Your task to perform on an android device: Add acer predator to the cart on costco, then select checkout. Image 0: 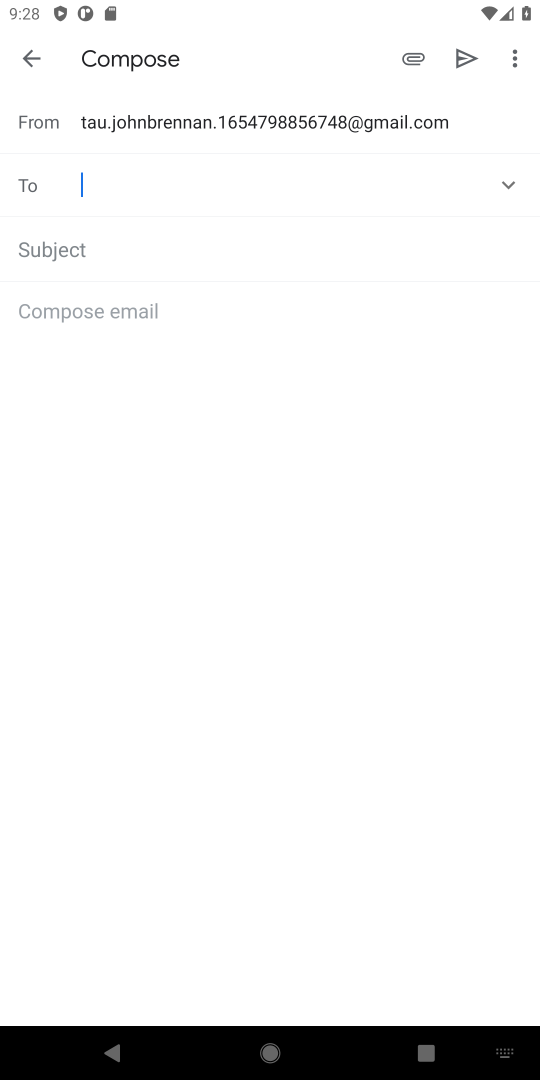
Step 0: press home button
Your task to perform on an android device: Add acer predator to the cart on costco, then select checkout. Image 1: 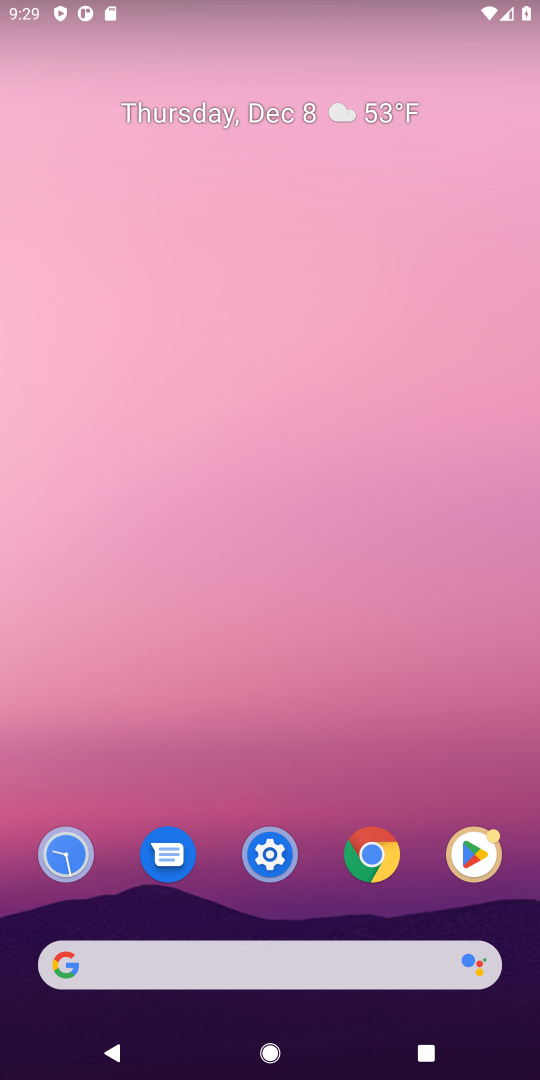
Step 1: click (94, 964)
Your task to perform on an android device: Add acer predator to the cart on costco, then select checkout. Image 2: 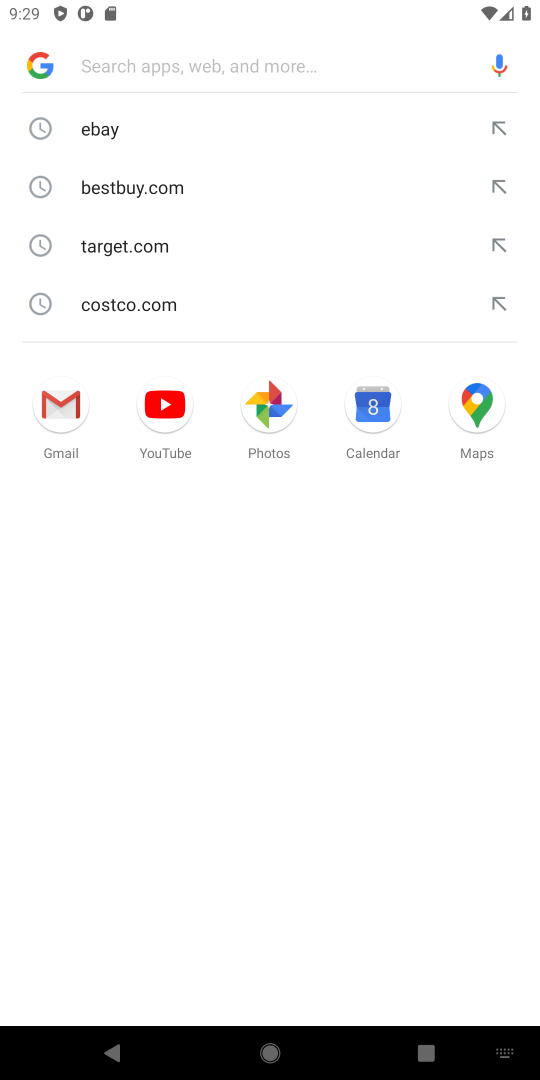
Step 2: press enter
Your task to perform on an android device: Add acer predator to the cart on costco, then select checkout. Image 3: 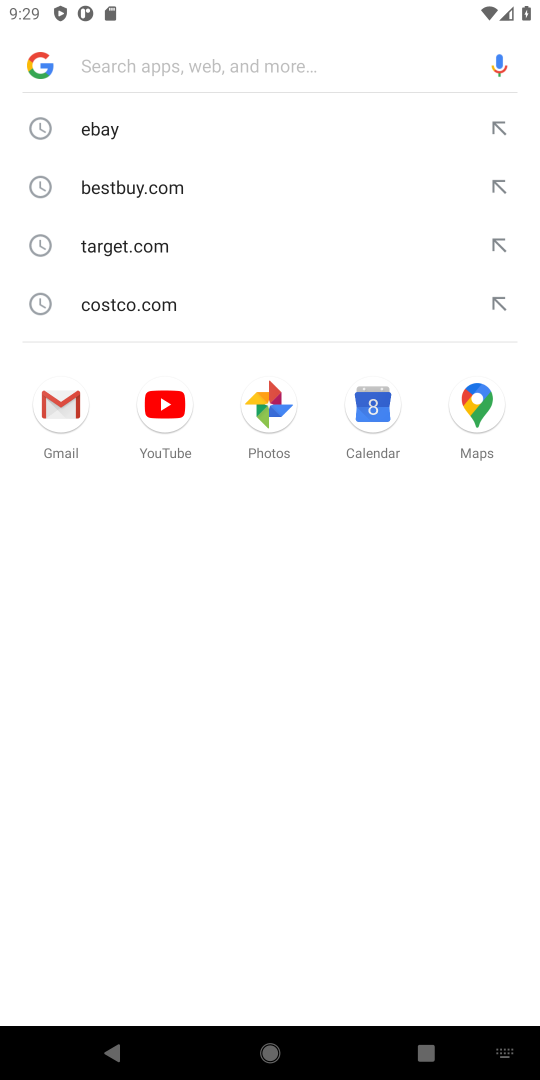
Step 3: type "costco"
Your task to perform on an android device: Add acer predator to the cart on costco, then select checkout. Image 4: 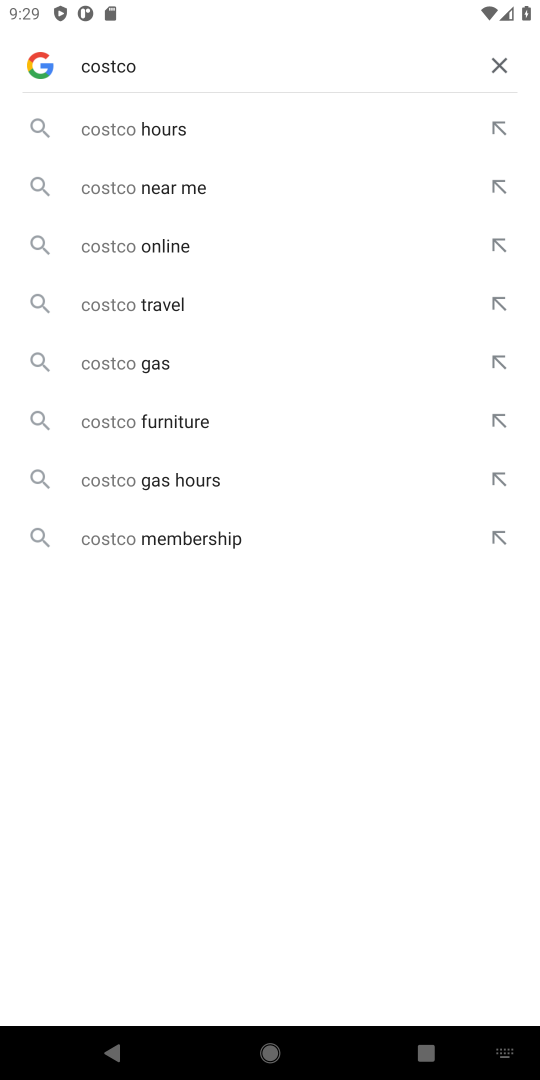
Step 4: press enter
Your task to perform on an android device: Add acer predator to the cart on costco, then select checkout. Image 5: 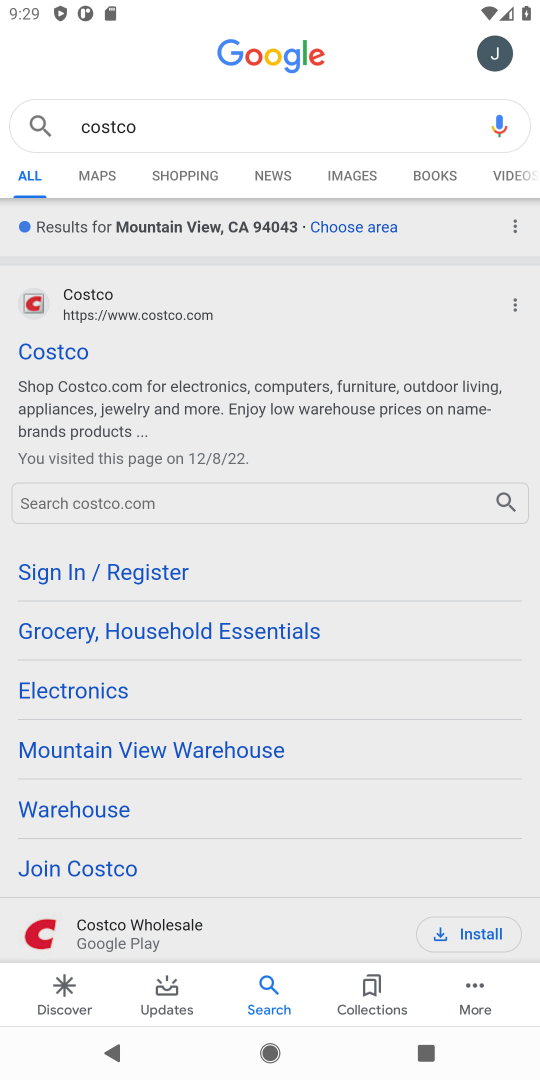
Step 5: click (48, 351)
Your task to perform on an android device: Add acer predator to the cart on costco, then select checkout. Image 6: 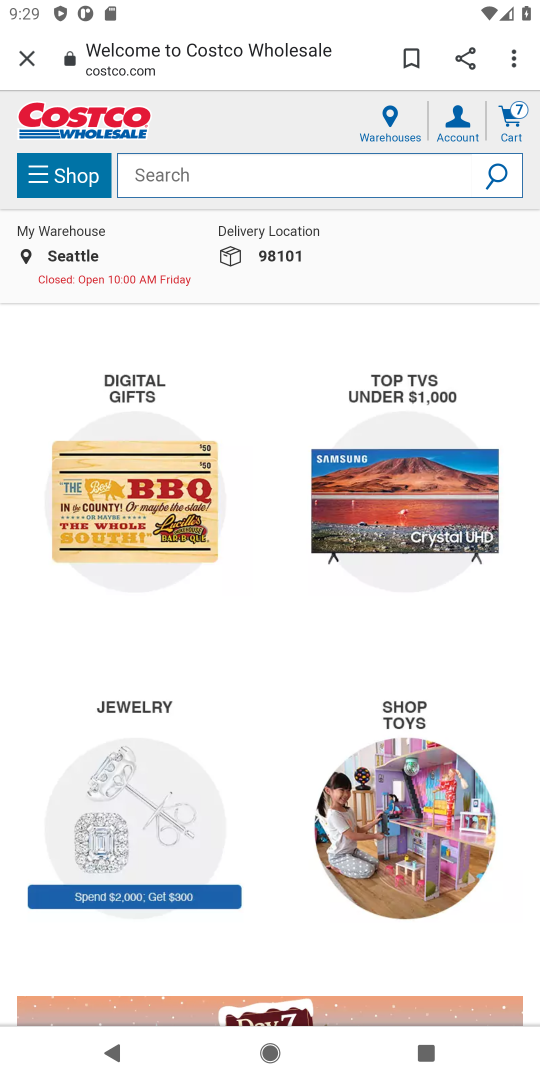
Step 6: click (180, 172)
Your task to perform on an android device: Add acer predator to the cart on costco, then select checkout. Image 7: 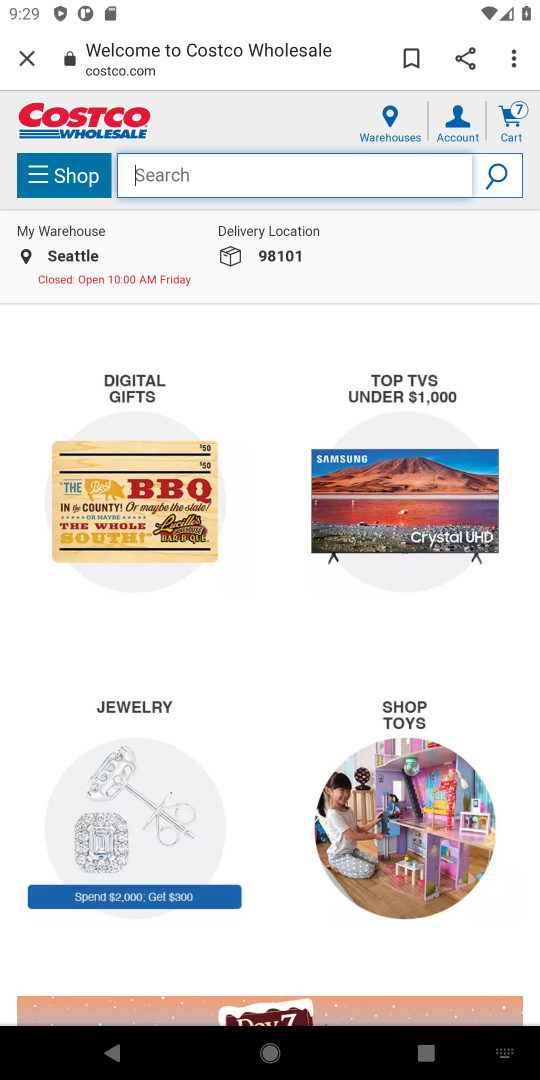
Step 7: press enter
Your task to perform on an android device: Add acer predator to the cart on costco, then select checkout. Image 8: 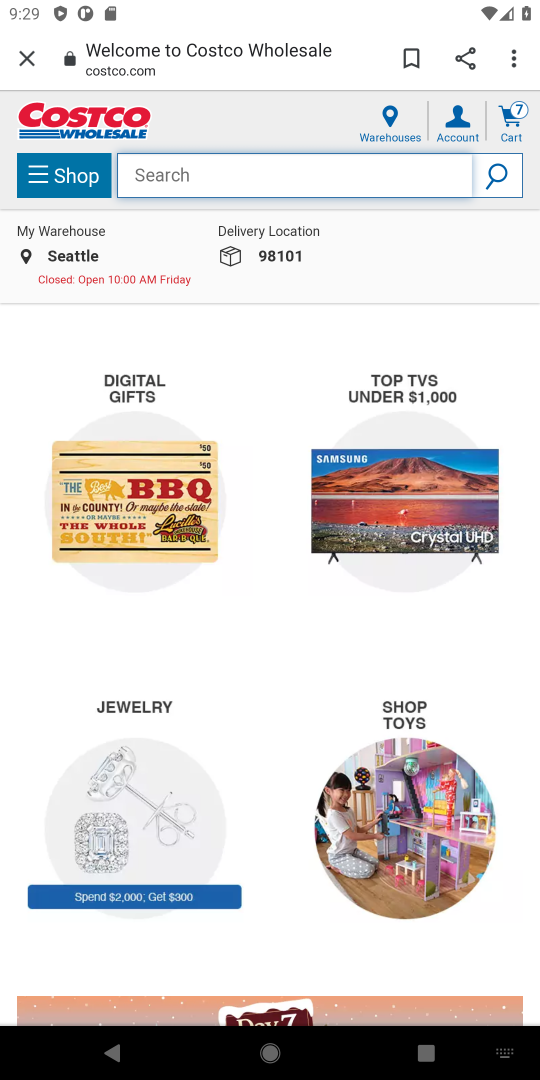
Step 8: type "acer predator"
Your task to perform on an android device: Add acer predator to the cart on costco, then select checkout. Image 9: 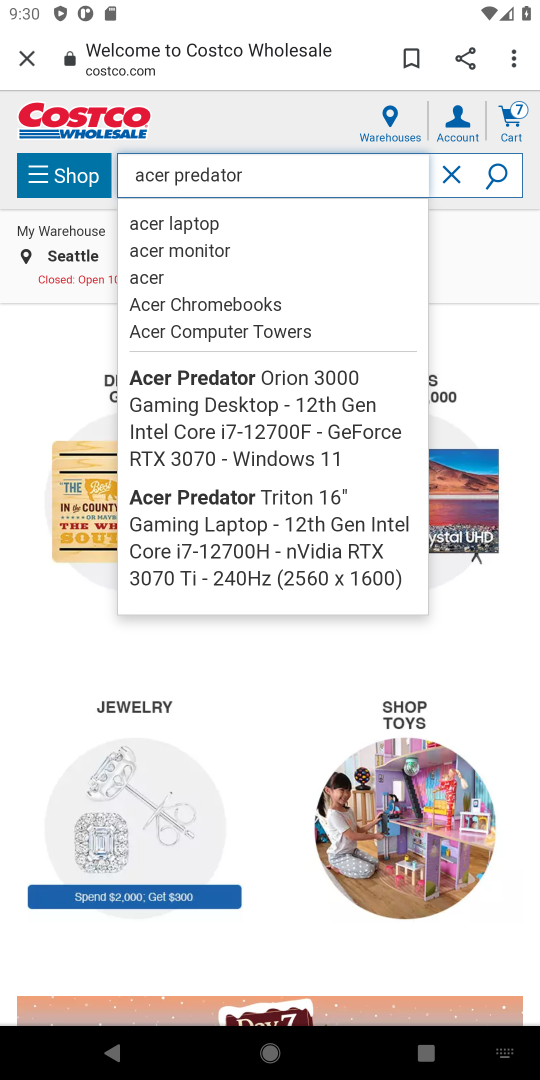
Step 9: press enter
Your task to perform on an android device: Add acer predator to the cart on costco, then select checkout. Image 10: 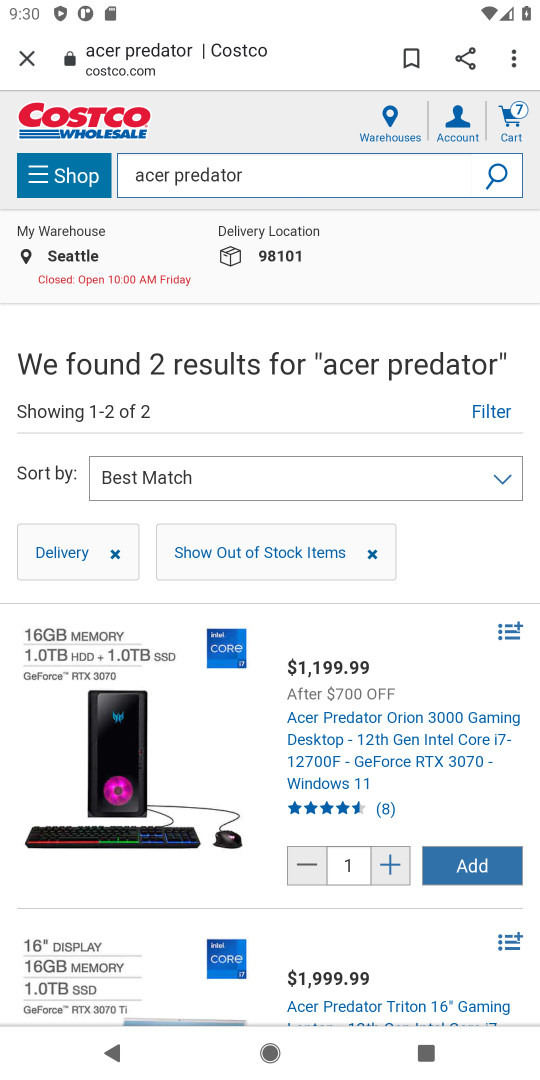
Step 10: drag from (387, 799) to (390, 496)
Your task to perform on an android device: Add acer predator to the cart on costco, then select checkout. Image 11: 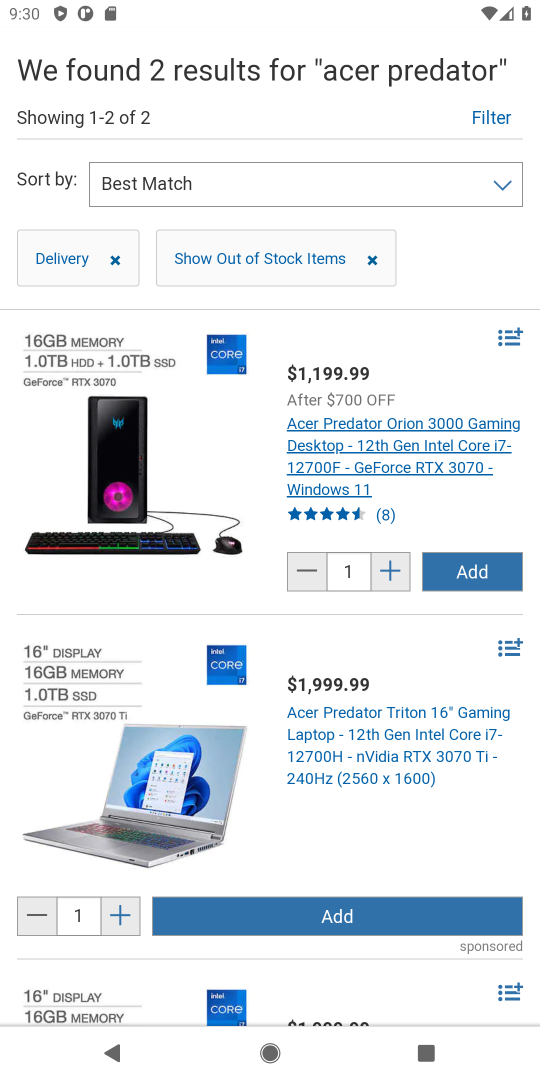
Step 11: click (468, 568)
Your task to perform on an android device: Add acer predator to the cart on costco, then select checkout. Image 12: 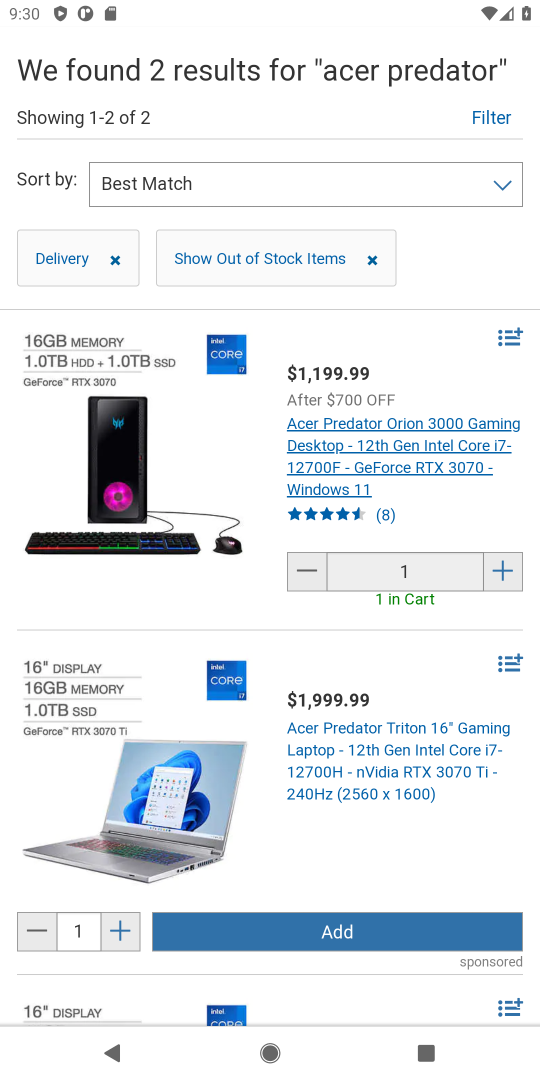
Step 12: click (333, 445)
Your task to perform on an android device: Add acer predator to the cart on costco, then select checkout. Image 13: 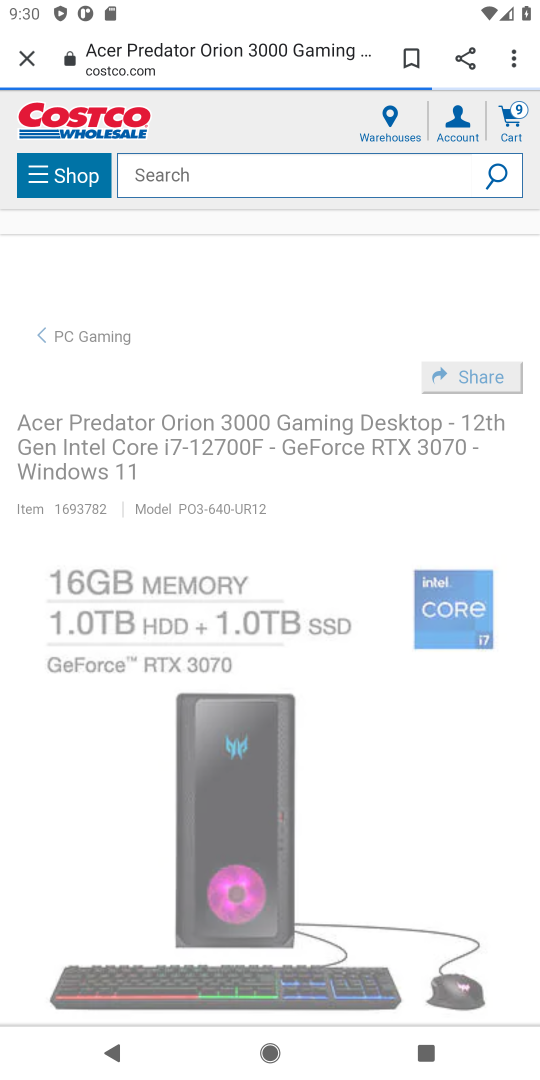
Step 13: drag from (310, 664) to (296, 270)
Your task to perform on an android device: Add acer predator to the cart on costco, then select checkout. Image 14: 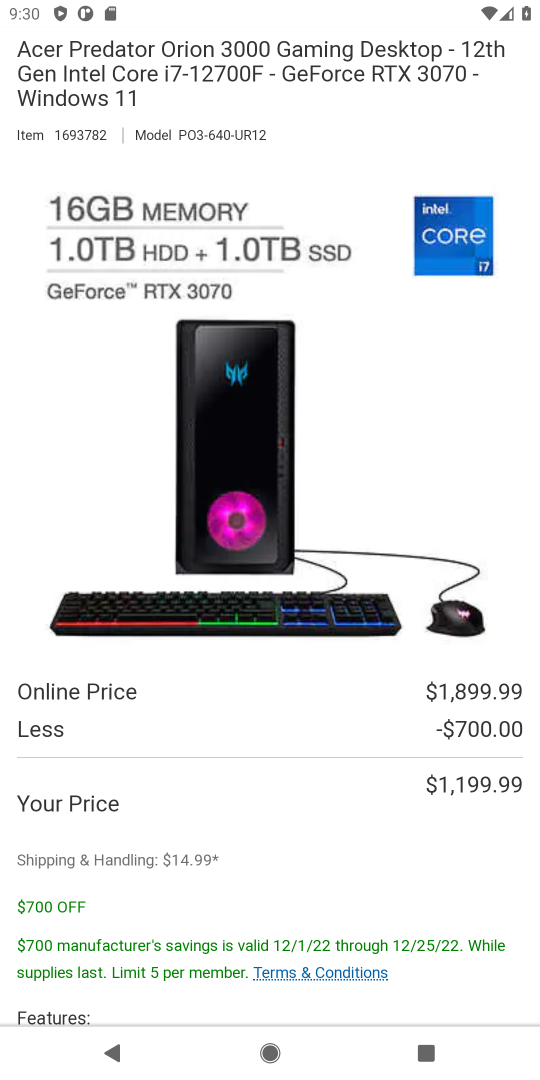
Step 14: drag from (266, 760) to (272, 239)
Your task to perform on an android device: Add acer predator to the cart on costco, then select checkout. Image 15: 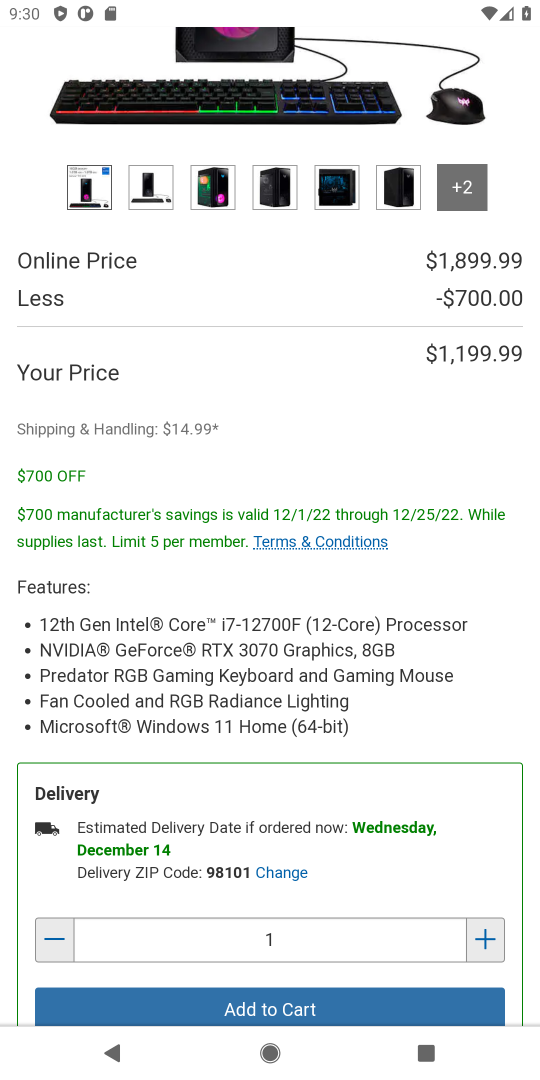
Step 15: drag from (334, 878) to (334, 282)
Your task to perform on an android device: Add acer predator to the cart on costco, then select checkout. Image 16: 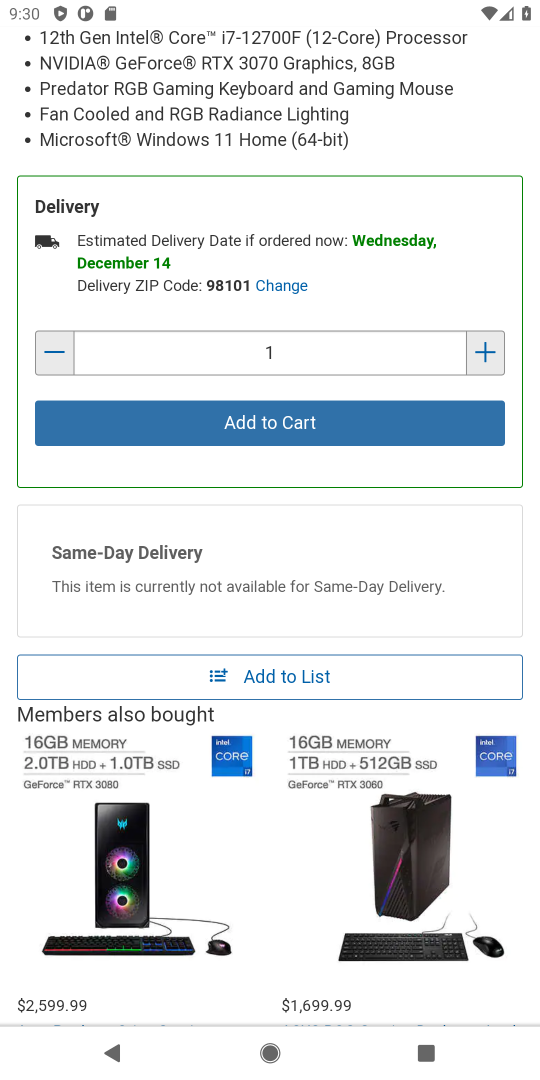
Step 16: click (254, 416)
Your task to perform on an android device: Add acer predator to the cart on costco, then select checkout. Image 17: 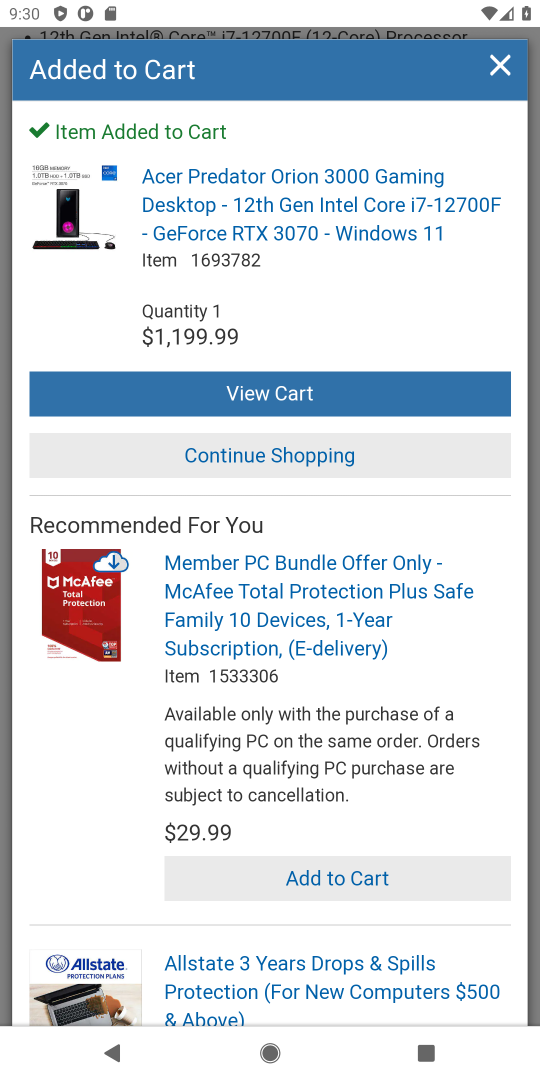
Step 17: click (257, 394)
Your task to perform on an android device: Add acer predator to the cart on costco, then select checkout. Image 18: 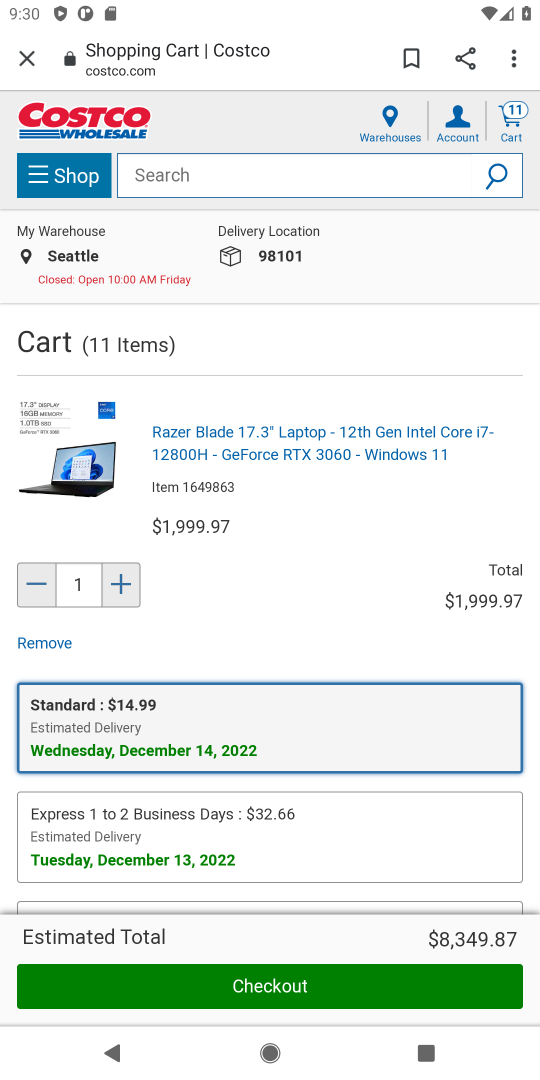
Step 18: click (246, 986)
Your task to perform on an android device: Add acer predator to the cart on costco, then select checkout. Image 19: 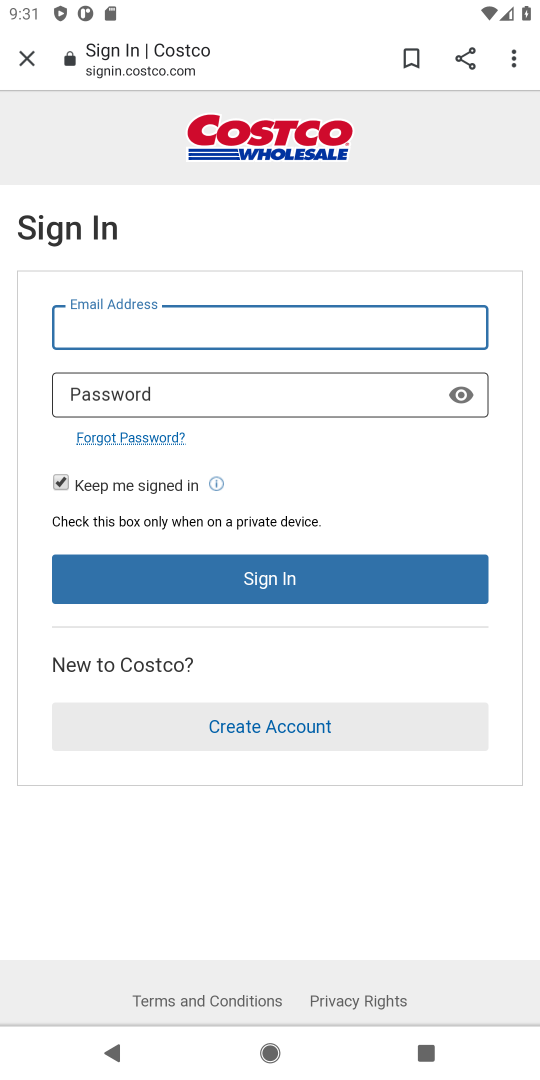
Step 19: task complete